Your task to perform on an android device: turn off javascript in the chrome app Image 0: 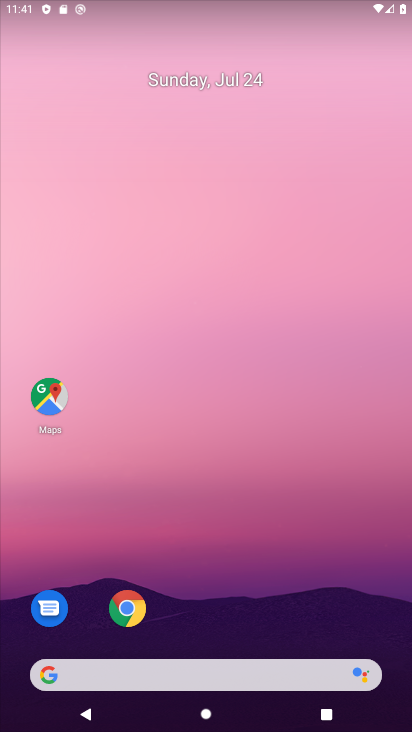
Step 0: press home button
Your task to perform on an android device: turn off javascript in the chrome app Image 1: 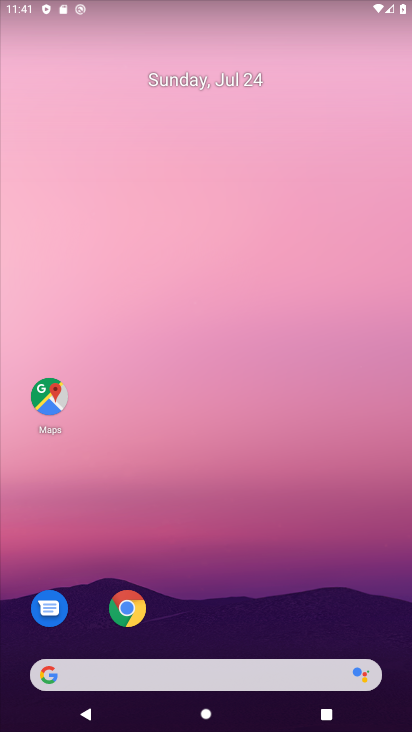
Step 1: click (136, 608)
Your task to perform on an android device: turn off javascript in the chrome app Image 2: 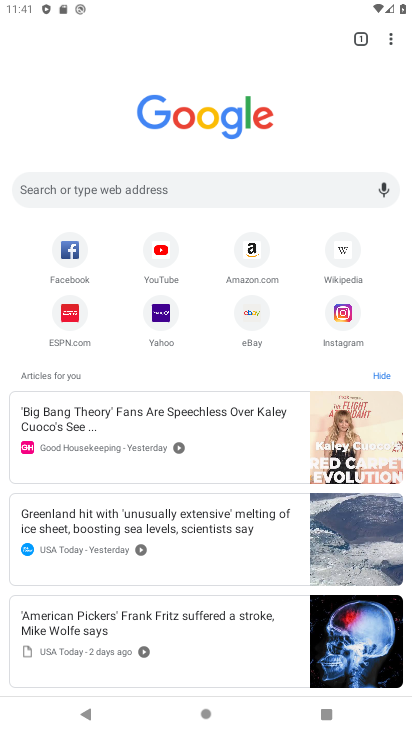
Step 2: click (389, 36)
Your task to perform on an android device: turn off javascript in the chrome app Image 3: 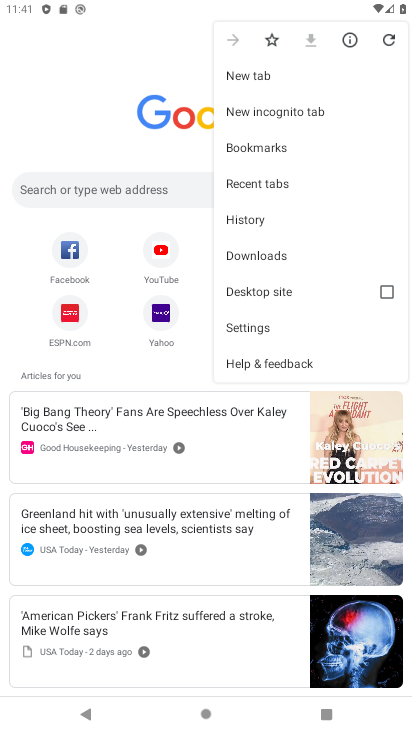
Step 3: click (239, 333)
Your task to perform on an android device: turn off javascript in the chrome app Image 4: 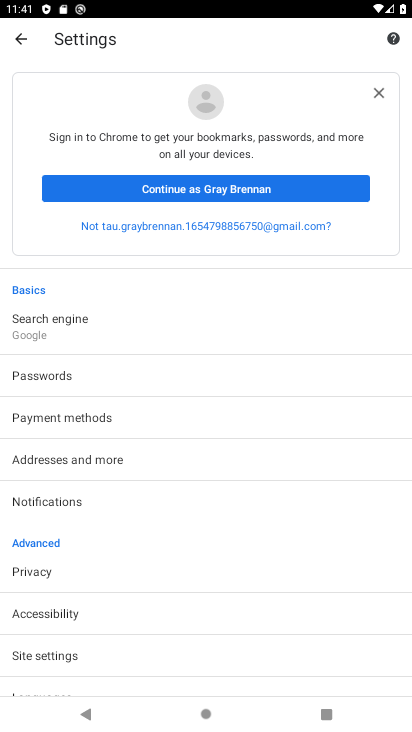
Step 4: click (95, 660)
Your task to perform on an android device: turn off javascript in the chrome app Image 5: 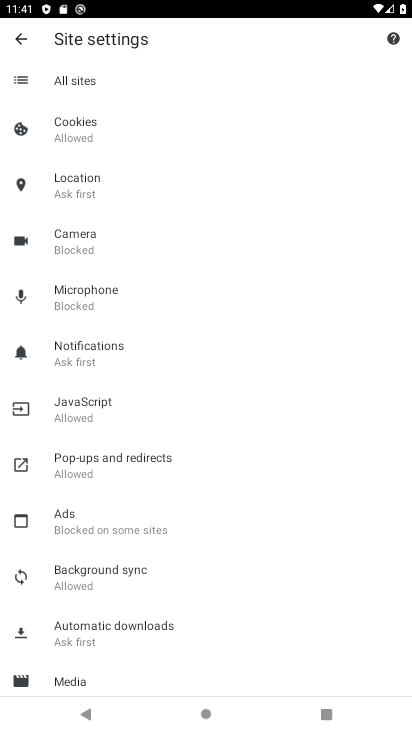
Step 5: click (92, 406)
Your task to perform on an android device: turn off javascript in the chrome app Image 6: 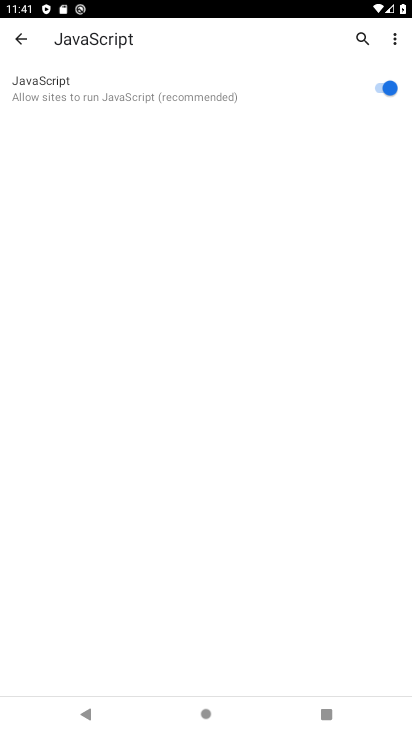
Step 6: click (387, 84)
Your task to perform on an android device: turn off javascript in the chrome app Image 7: 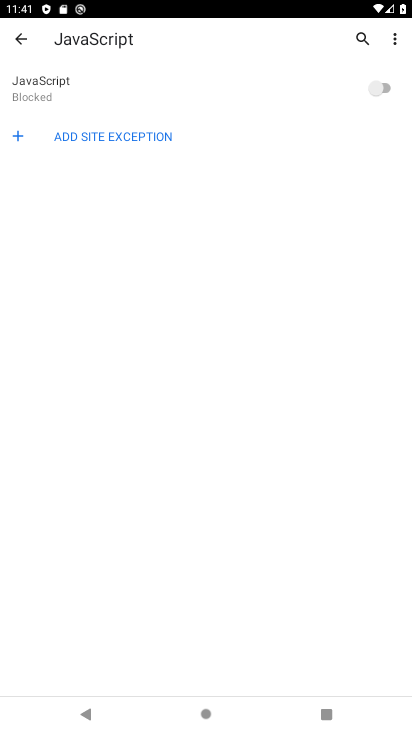
Step 7: task complete